Your task to perform on an android device: turn off javascript in the chrome app Image 0: 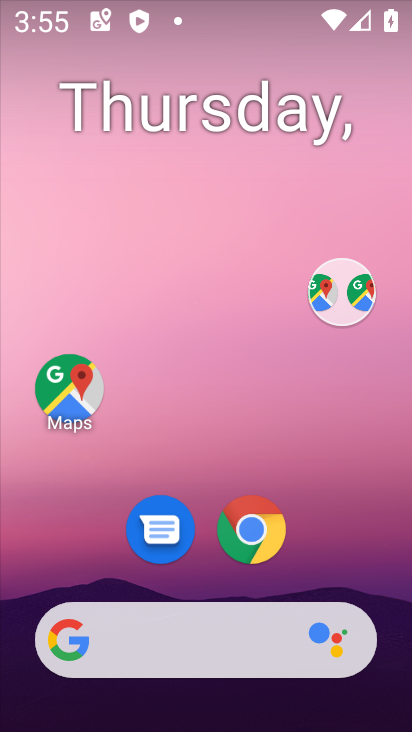
Step 0: click (283, 141)
Your task to perform on an android device: turn off javascript in the chrome app Image 1: 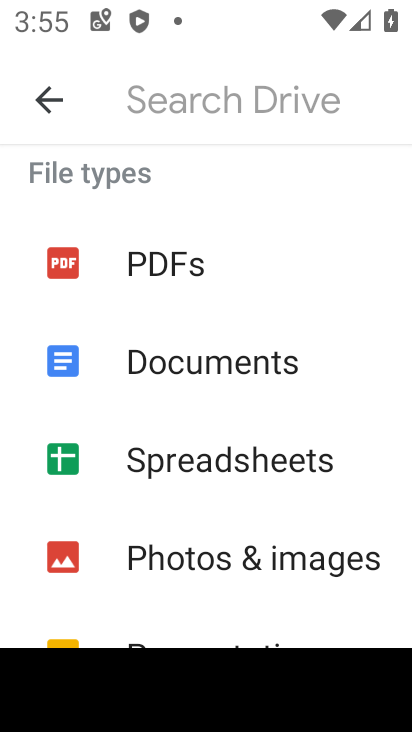
Step 1: task complete